Your task to perform on an android device: Search for flights from Mexico city to Seattle Image 0: 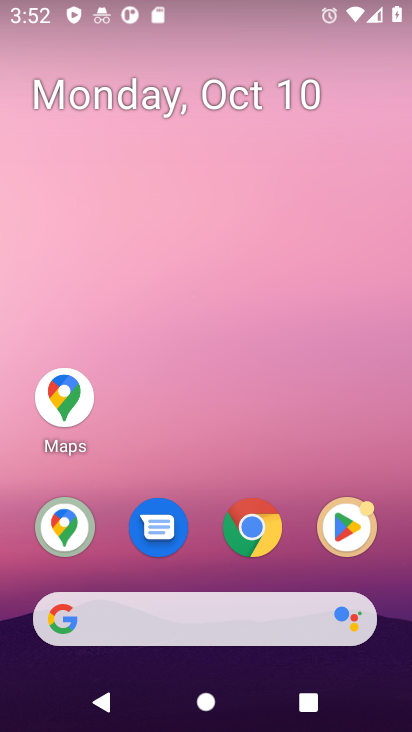
Step 0: drag from (149, 611) to (278, 64)
Your task to perform on an android device: Search for flights from Mexico city to Seattle Image 1: 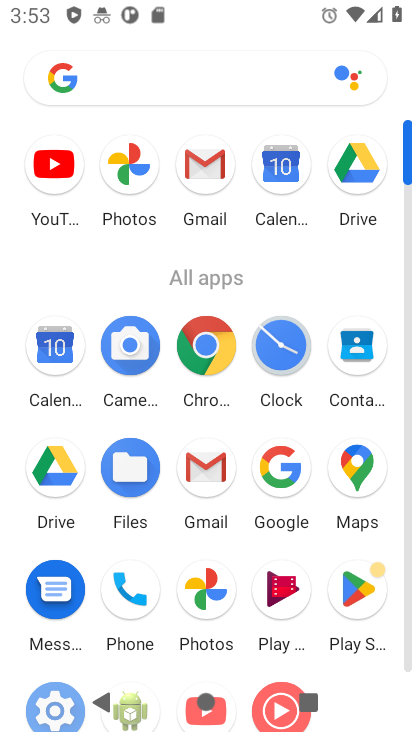
Step 1: click (206, 344)
Your task to perform on an android device: Search for flights from Mexico city to Seattle Image 2: 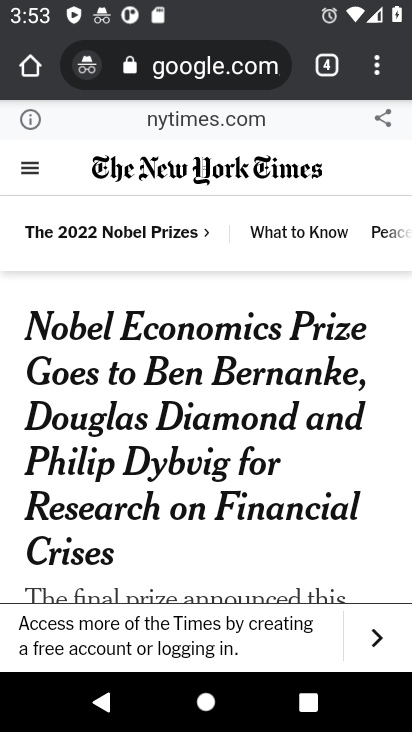
Step 2: click (259, 74)
Your task to perform on an android device: Search for flights from Mexico city to Seattle Image 3: 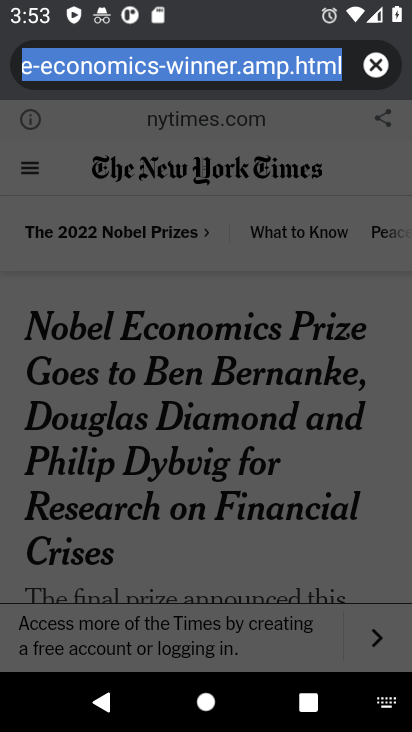
Step 3: click (371, 65)
Your task to perform on an android device: Search for flights from Mexico city to Seattle Image 4: 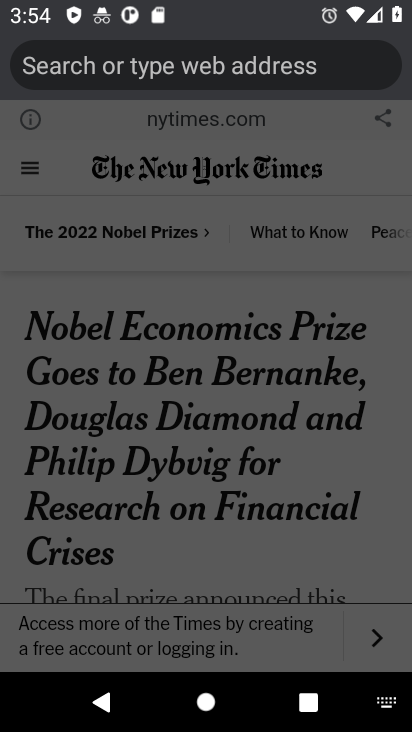
Step 4: type "flights from Mexico city to seattle"
Your task to perform on an android device: Search for flights from Mexico city to Seattle Image 5: 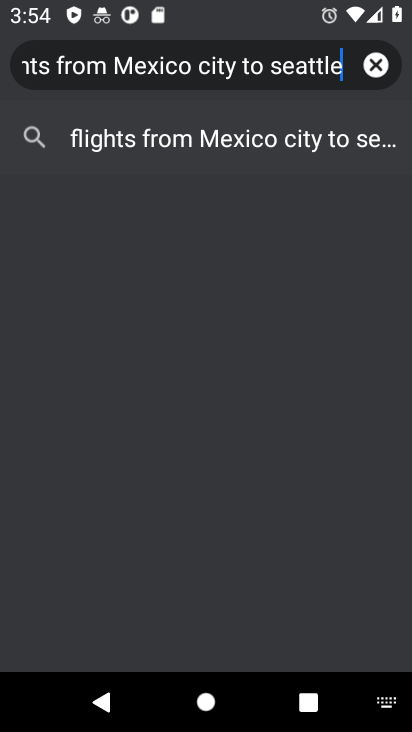
Step 5: click (262, 143)
Your task to perform on an android device: Search for flights from Mexico city to Seattle Image 6: 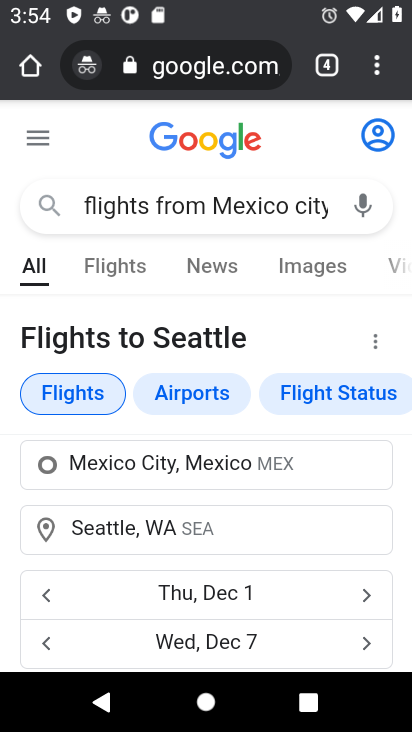
Step 6: task complete